Your task to perform on an android device: Go to internet settings Image 0: 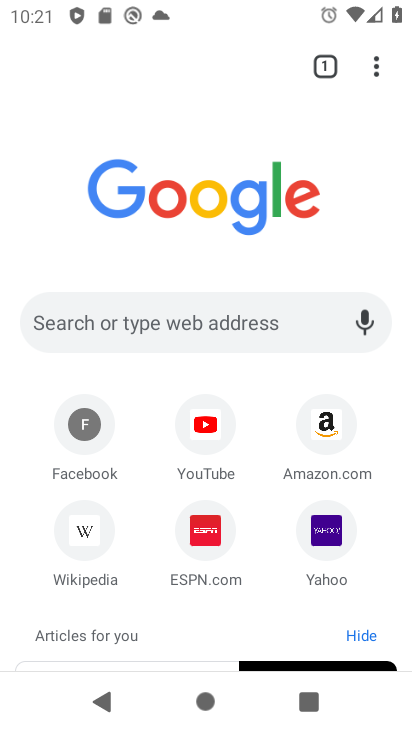
Step 0: press home button
Your task to perform on an android device: Go to internet settings Image 1: 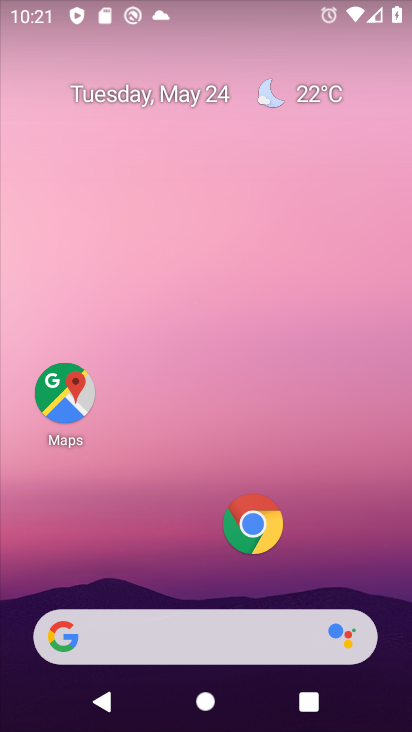
Step 1: drag from (278, 421) to (310, 13)
Your task to perform on an android device: Go to internet settings Image 2: 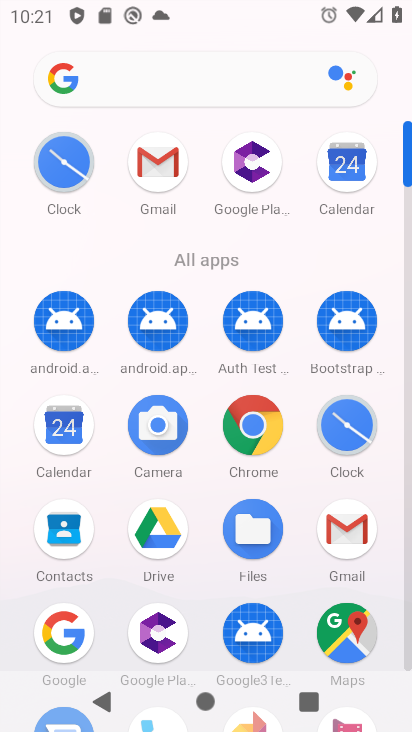
Step 2: drag from (215, 510) to (265, 110)
Your task to perform on an android device: Go to internet settings Image 3: 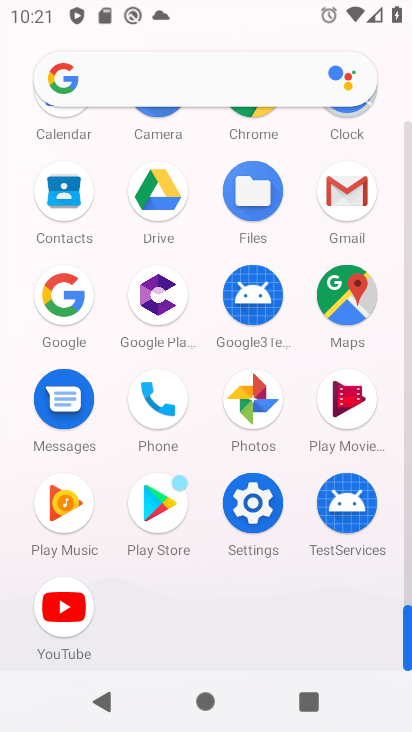
Step 3: click (267, 500)
Your task to perform on an android device: Go to internet settings Image 4: 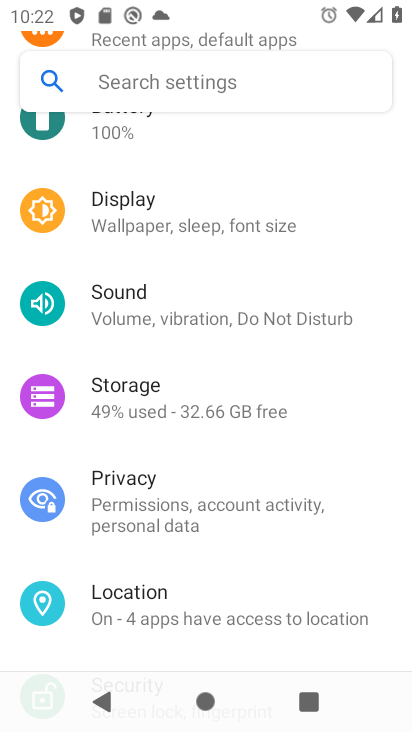
Step 4: drag from (233, 250) to (240, 644)
Your task to perform on an android device: Go to internet settings Image 5: 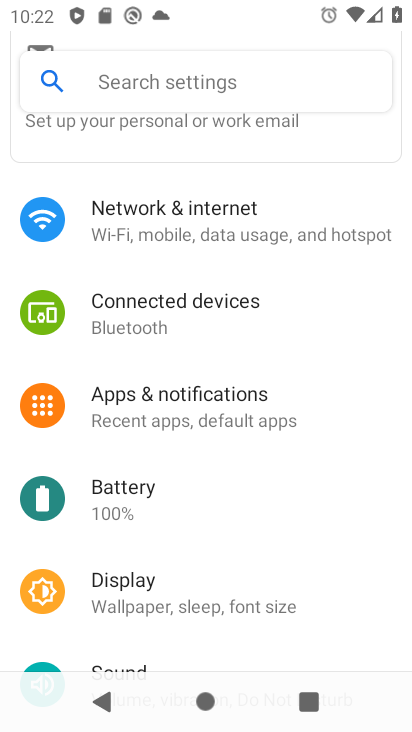
Step 5: click (253, 229)
Your task to perform on an android device: Go to internet settings Image 6: 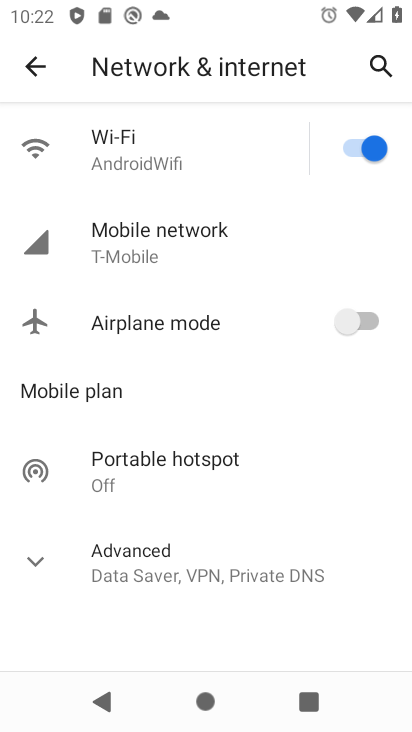
Step 6: task complete